Your task to perform on an android device: Open network settings Image 0: 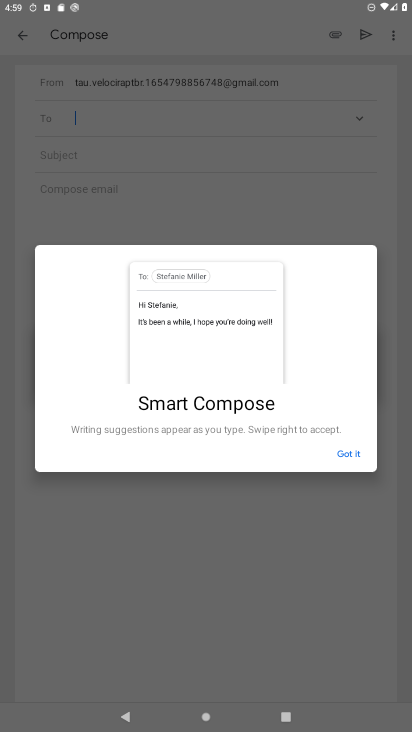
Step 0: press home button
Your task to perform on an android device: Open network settings Image 1: 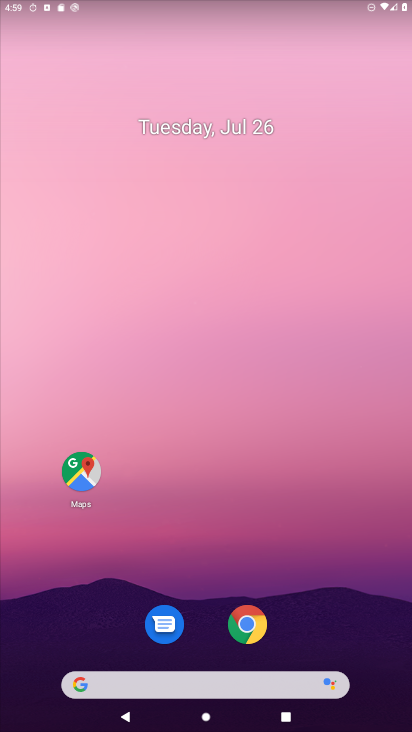
Step 1: drag from (269, 687) to (365, 0)
Your task to perform on an android device: Open network settings Image 2: 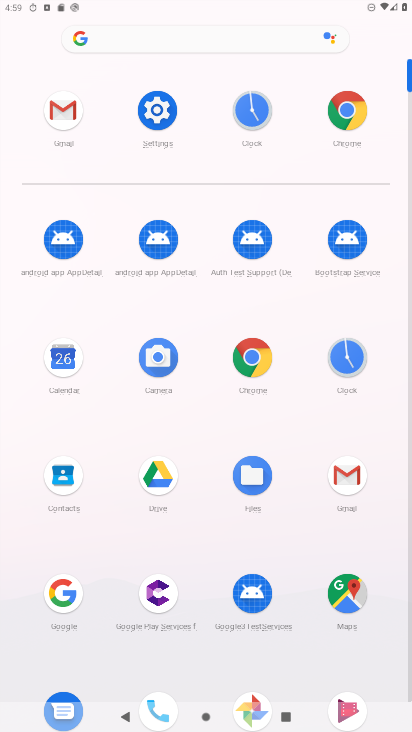
Step 2: click (166, 116)
Your task to perform on an android device: Open network settings Image 3: 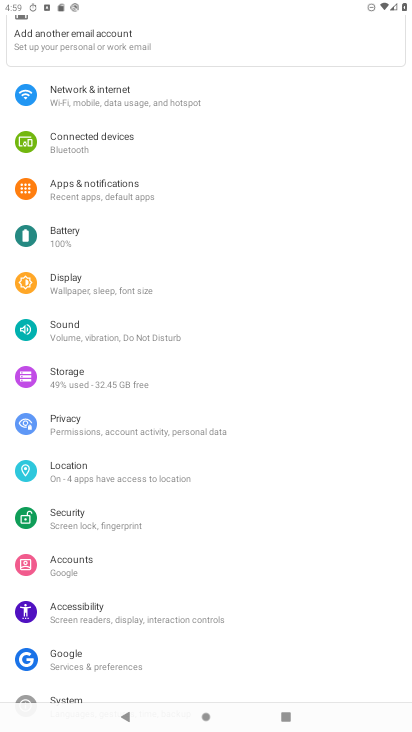
Step 3: click (134, 92)
Your task to perform on an android device: Open network settings Image 4: 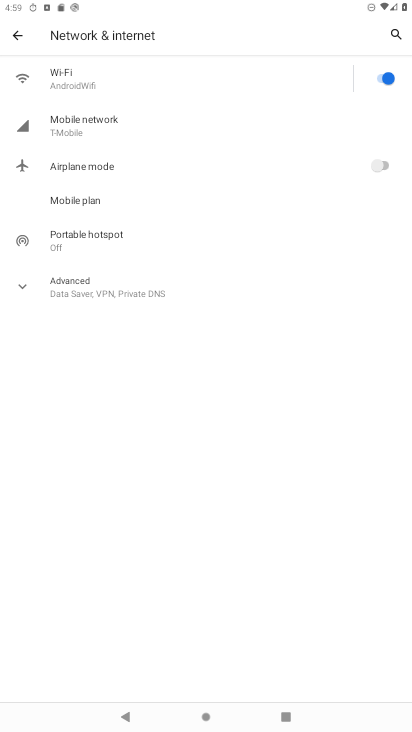
Step 4: task complete